Your task to perform on an android device: What is the recent news? Image 0: 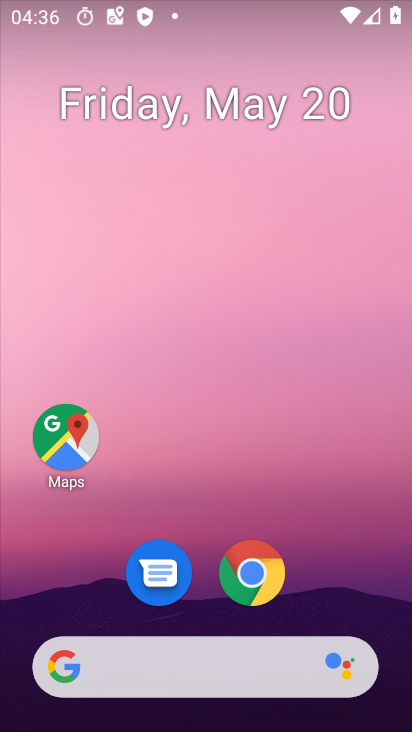
Step 0: drag from (322, 700) to (141, 47)
Your task to perform on an android device: What is the recent news? Image 1: 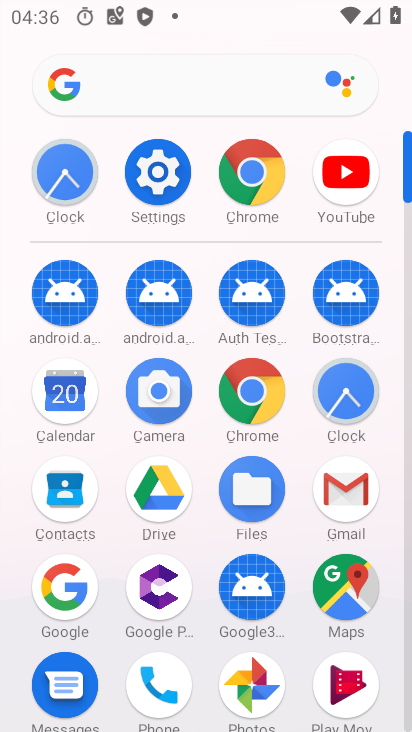
Step 1: task complete